Your task to perform on an android device: toggle notifications settings in the gmail app Image 0: 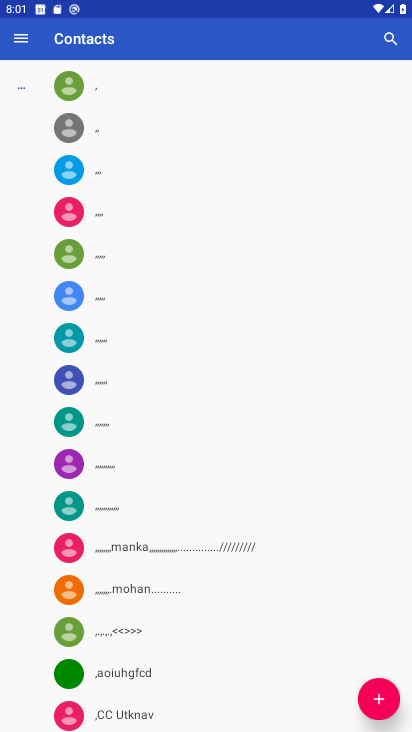
Step 0: press home button
Your task to perform on an android device: toggle notifications settings in the gmail app Image 1: 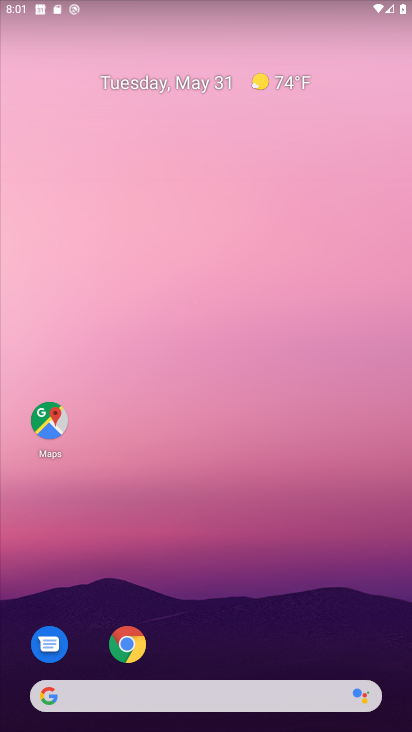
Step 1: drag from (218, 659) to (227, 20)
Your task to perform on an android device: toggle notifications settings in the gmail app Image 2: 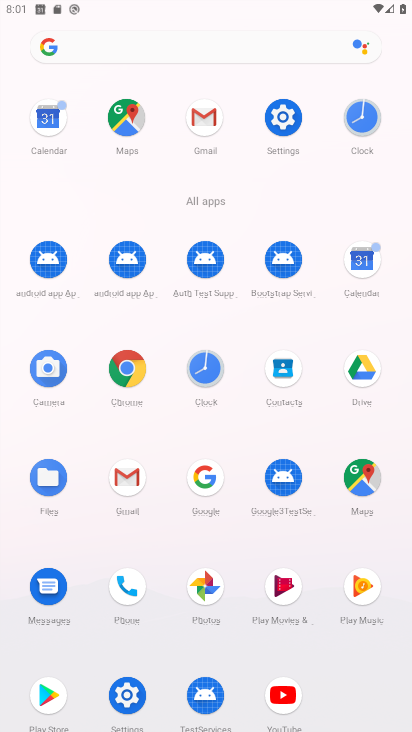
Step 2: click (205, 110)
Your task to perform on an android device: toggle notifications settings in the gmail app Image 3: 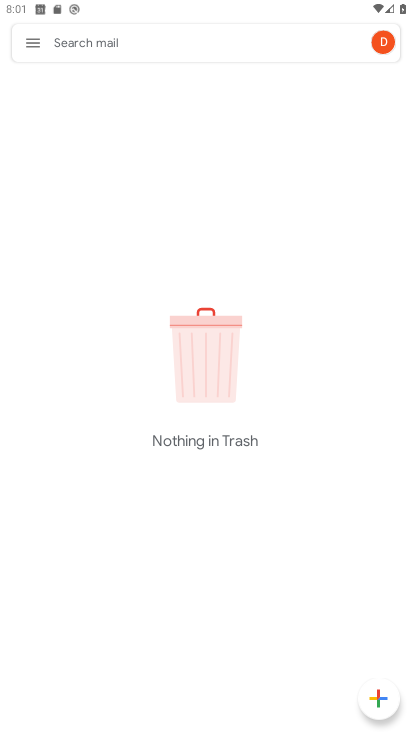
Step 3: click (29, 36)
Your task to perform on an android device: toggle notifications settings in the gmail app Image 4: 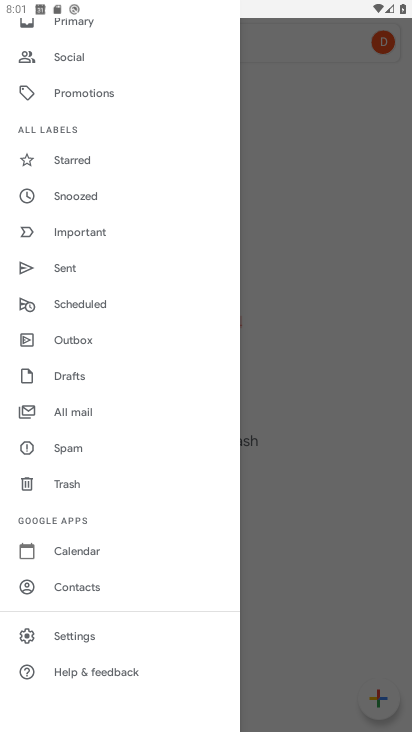
Step 4: click (90, 630)
Your task to perform on an android device: toggle notifications settings in the gmail app Image 5: 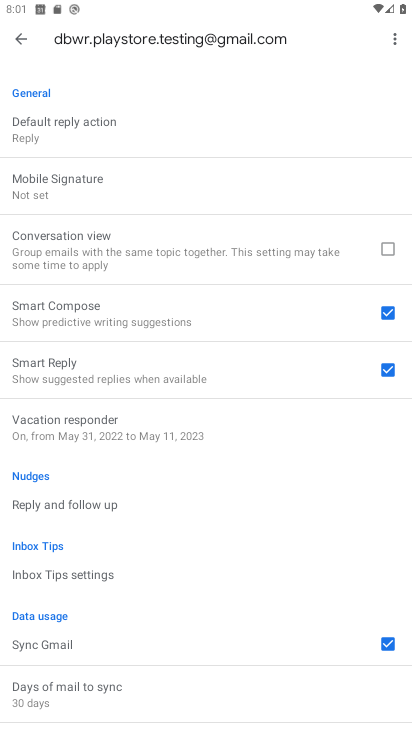
Step 5: click (23, 38)
Your task to perform on an android device: toggle notifications settings in the gmail app Image 6: 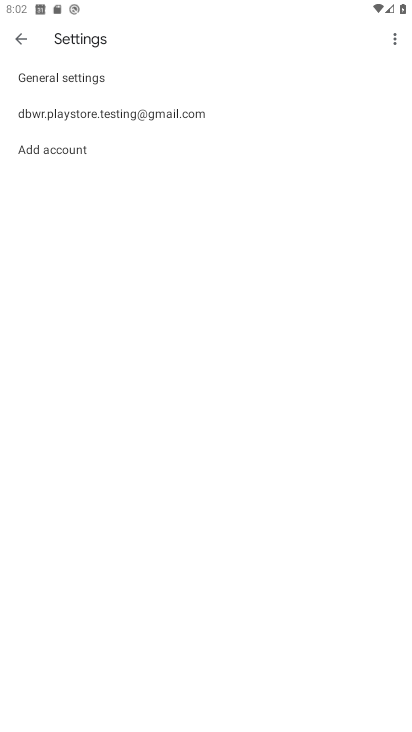
Step 6: click (85, 74)
Your task to perform on an android device: toggle notifications settings in the gmail app Image 7: 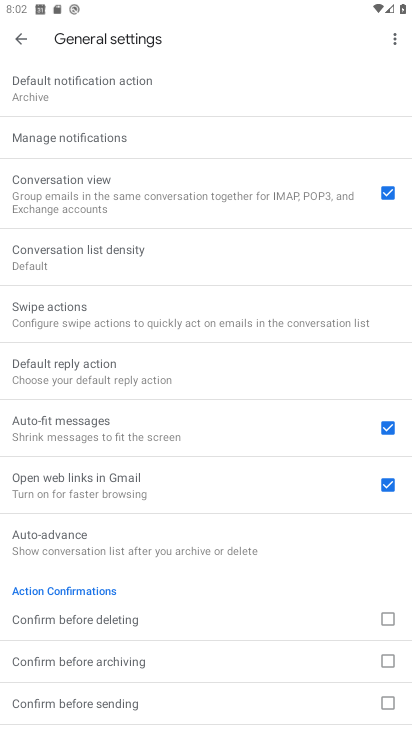
Step 7: click (151, 133)
Your task to perform on an android device: toggle notifications settings in the gmail app Image 8: 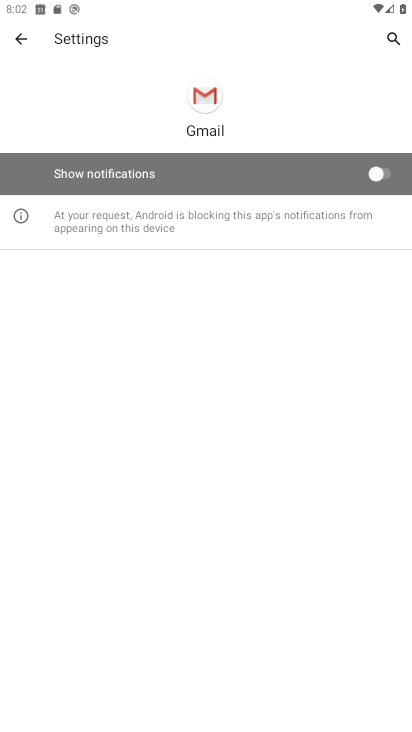
Step 8: click (380, 174)
Your task to perform on an android device: toggle notifications settings in the gmail app Image 9: 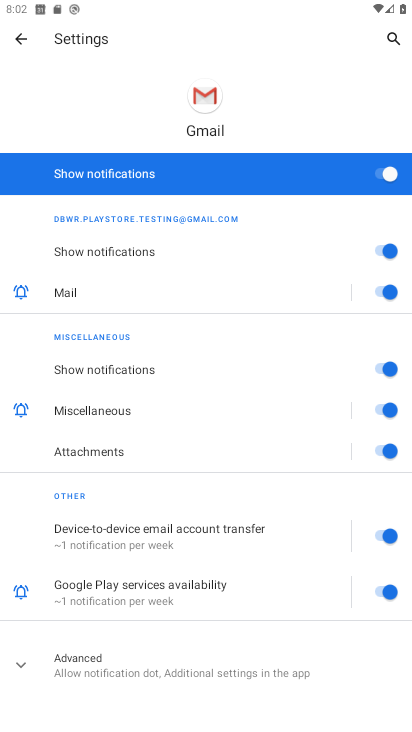
Step 9: task complete